Your task to perform on an android device: star an email in the gmail app Image 0: 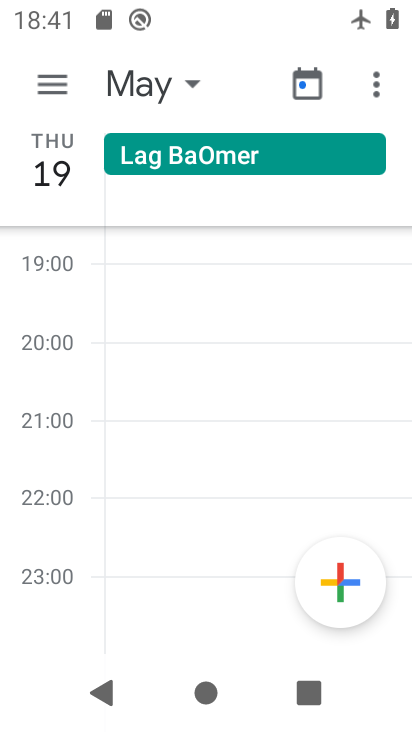
Step 0: press home button
Your task to perform on an android device: star an email in the gmail app Image 1: 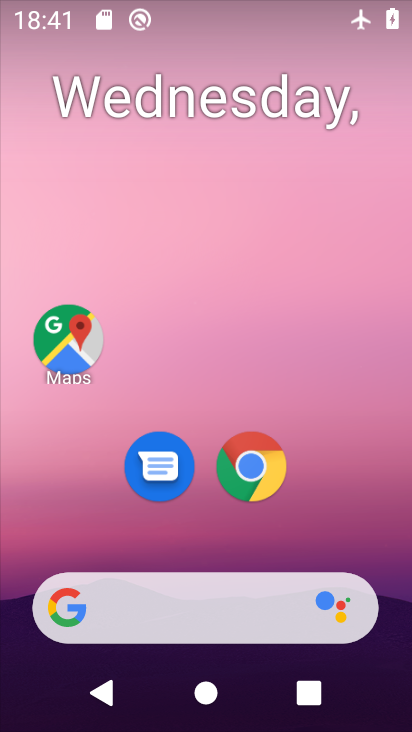
Step 1: drag from (324, 481) to (210, 83)
Your task to perform on an android device: star an email in the gmail app Image 2: 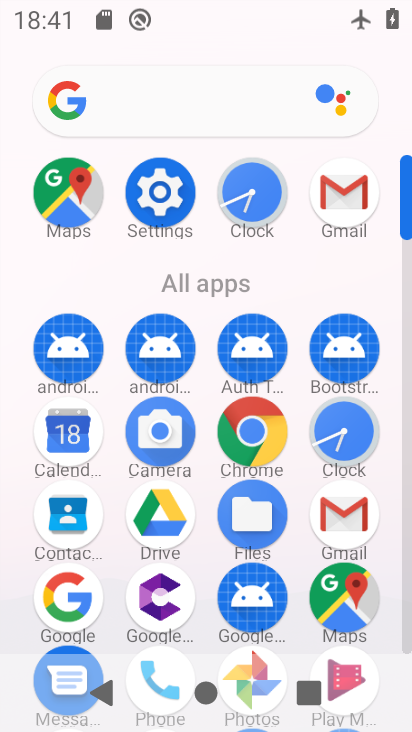
Step 2: click (336, 197)
Your task to perform on an android device: star an email in the gmail app Image 3: 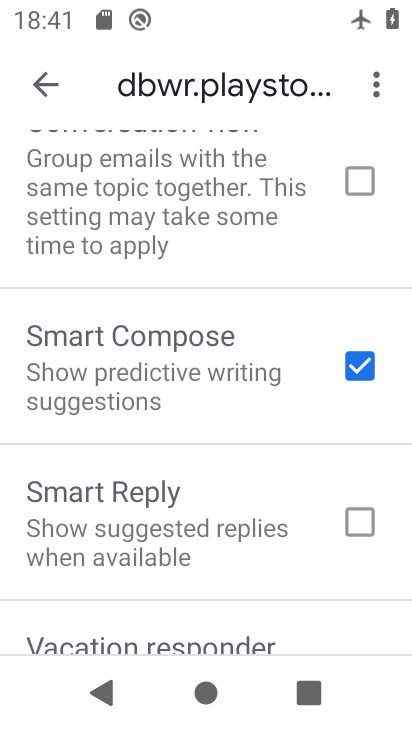
Step 3: click (40, 81)
Your task to perform on an android device: star an email in the gmail app Image 4: 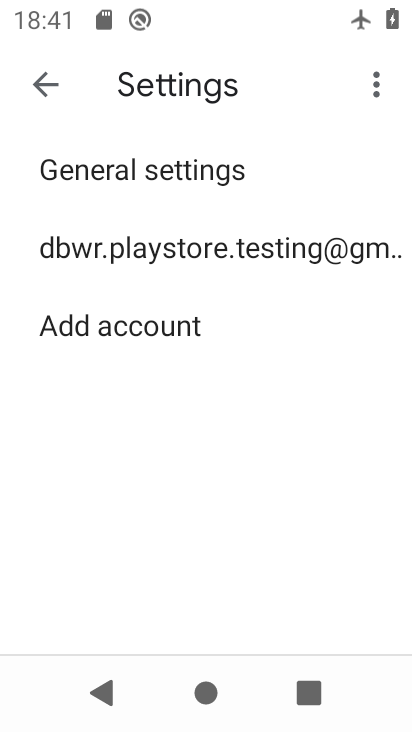
Step 4: click (40, 81)
Your task to perform on an android device: star an email in the gmail app Image 5: 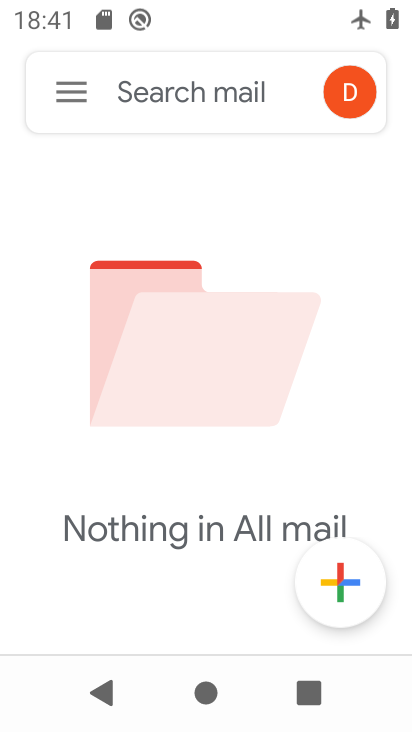
Step 5: click (60, 92)
Your task to perform on an android device: star an email in the gmail app Image 6: 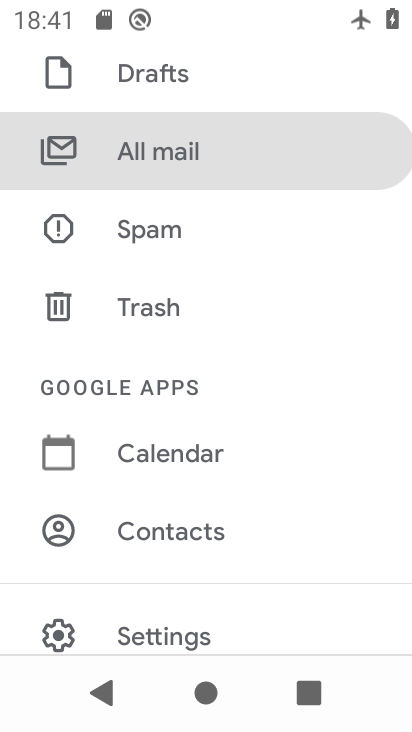
Step 6: click (204, 165)
Your task to perform on an android device: star an email in the gmail app Image 7: 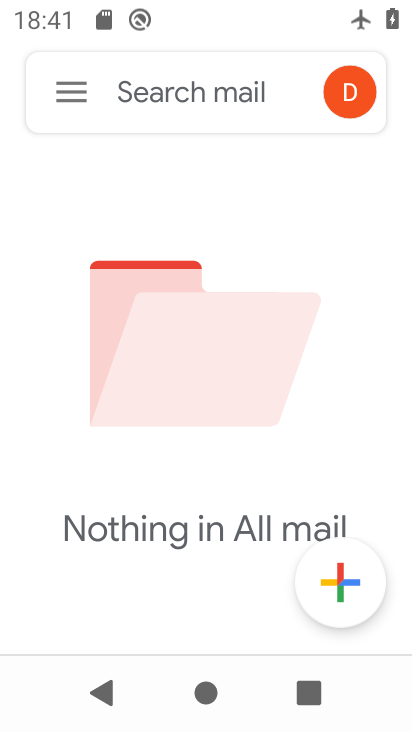
Step 7: task complete